Your task to perform on an android device: move an email to a new category in the gmail app Image 0: 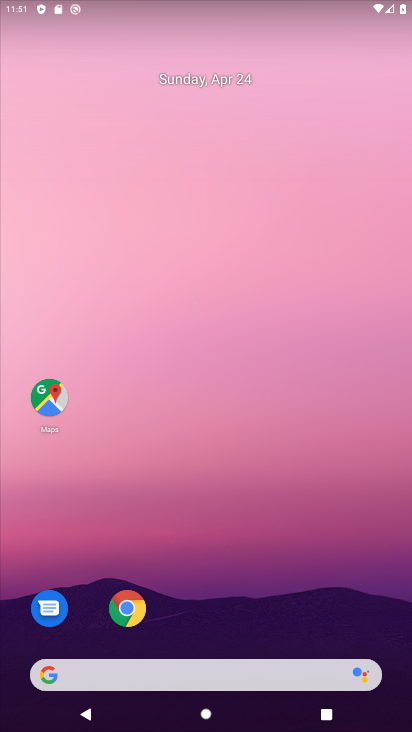
Step 0: drag from (231, 704) to (227, 26)
Your task to perform on an android device: move an email to a new category in the gmail app Image 1: 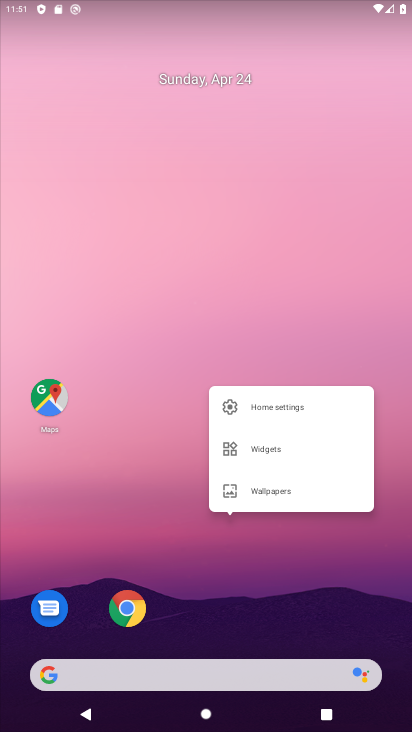
Step 1: click (220, 224)
Your task to perform on an android device: move an email to a new category in the gmail app Image 2: 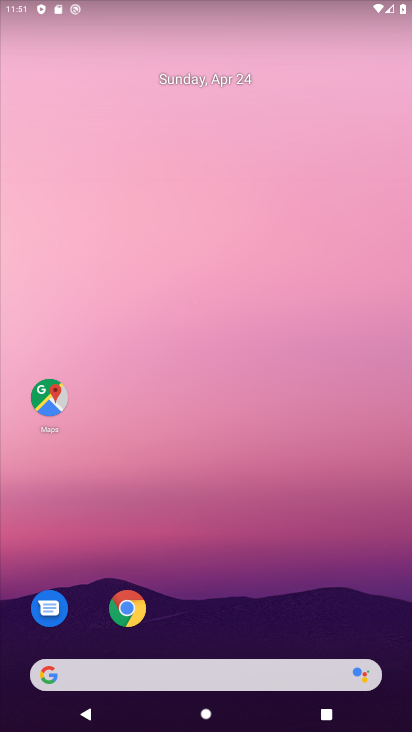
Step 2: drag from (230, 728) to (225, 127)
Your task to perform on an android device: move an email to a new category in the gmail app Image 3: 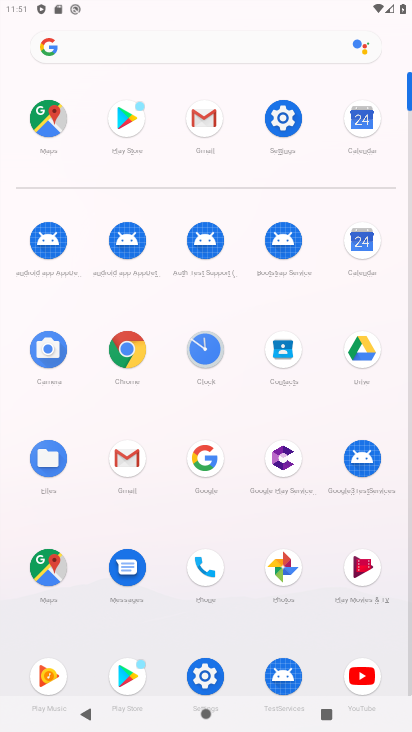
Step 3: click (127, 458)
Your task to perform on an android device: move an email to a new category in the gmail app Image 4: 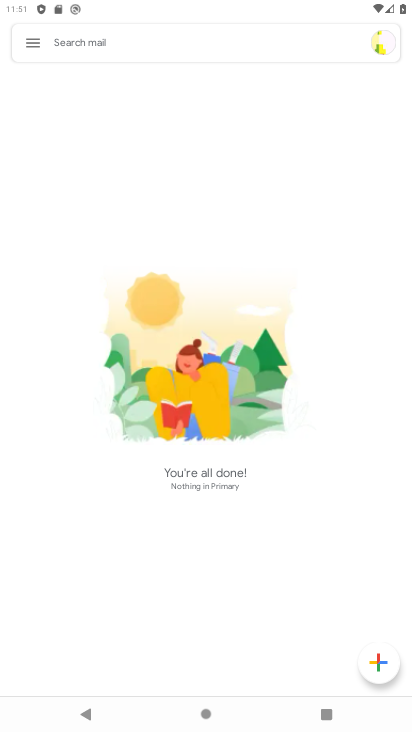
Step 4: click (27, 40)
Your task to perform on an android device: move an email to a new category in the gmail app Image 5: 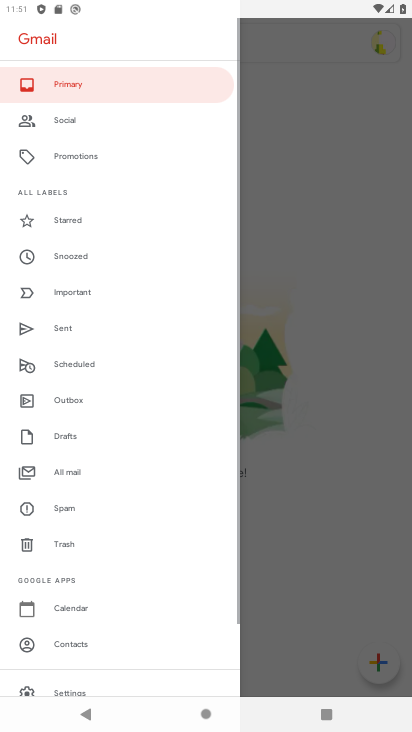
Step 5: click (80, 84)
Your task to perform on an android device: move an email to a new category in the gmail app Image 6: 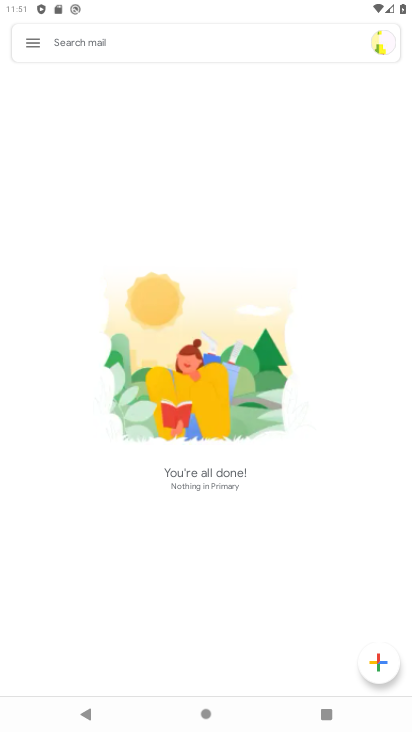
Step 6: task complete